Your task to perform on an android device: Open settings Image 0: 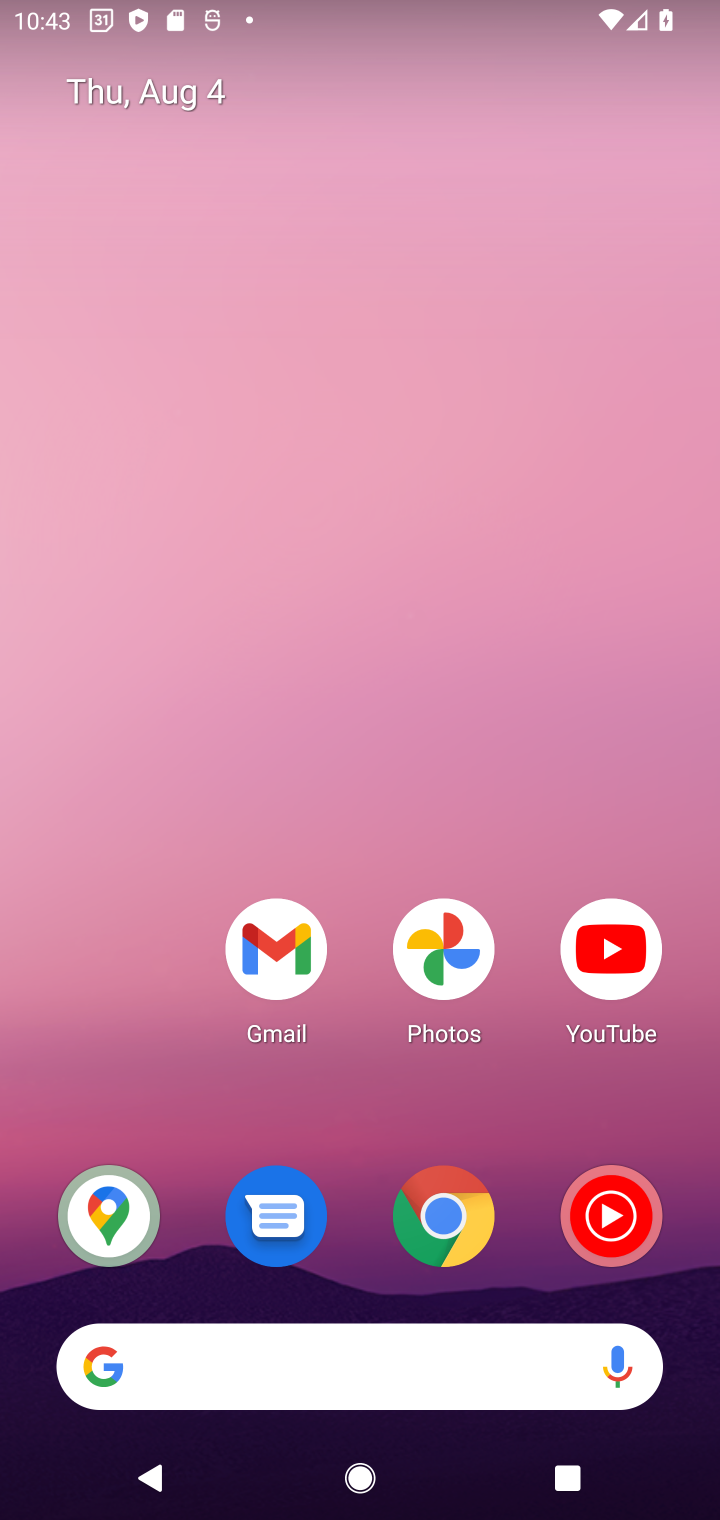
Step 0: drag from (345, 1260) to (371, 175)
Your task to perform on an android device: Open settings Image 1: 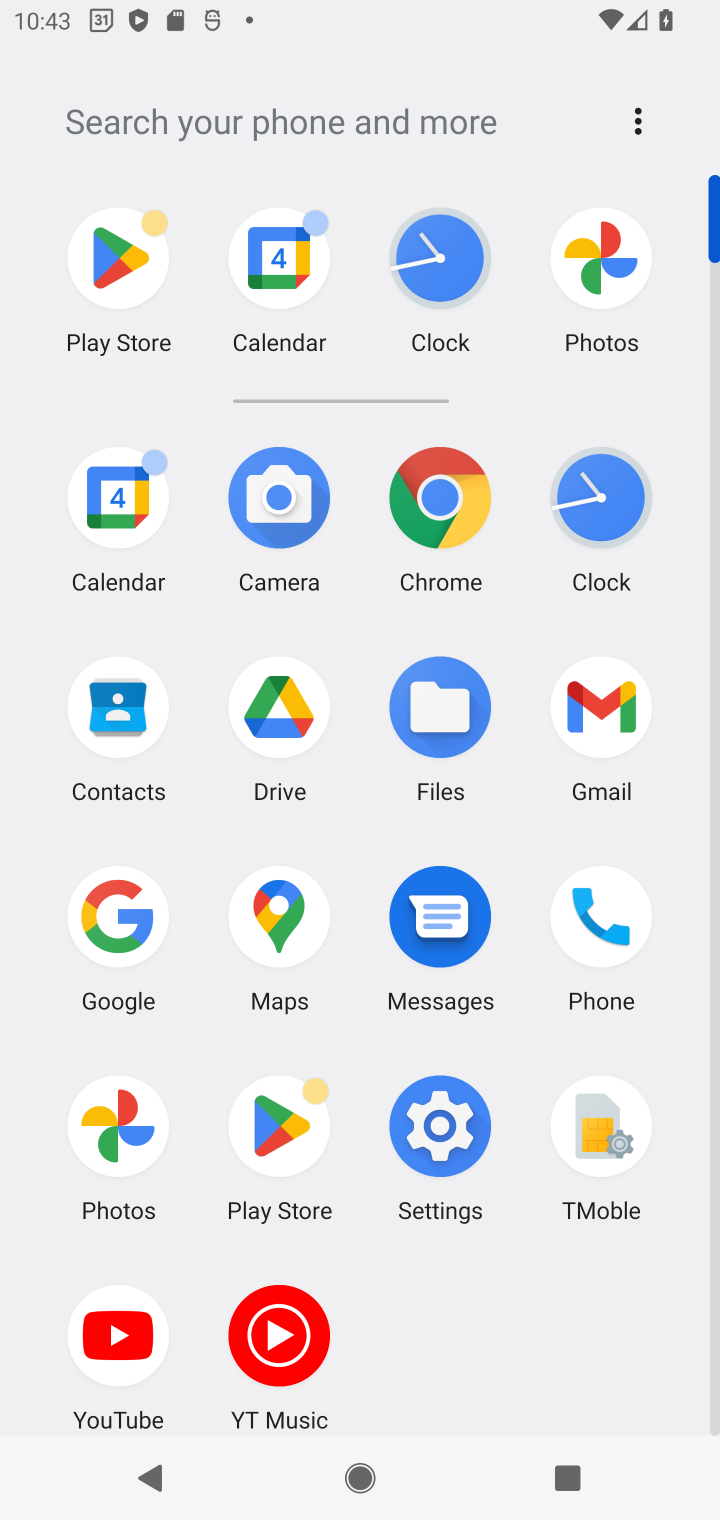
Step 1: click (435, 1124)
Your task to perform on an android device: Open settings Image 2: 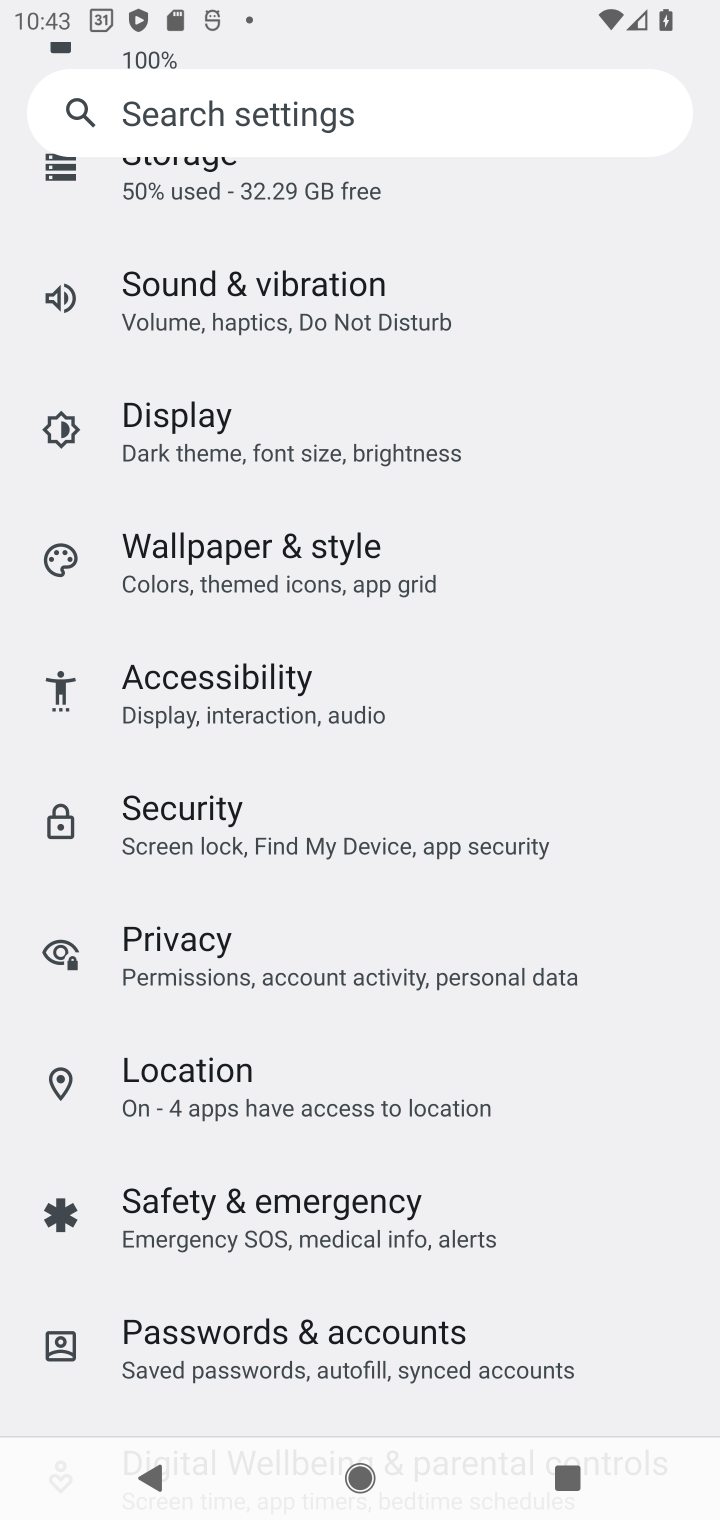
Step 2: task complete